Your task to perform on an android device: Do I have any events tomorrow? Image 0: 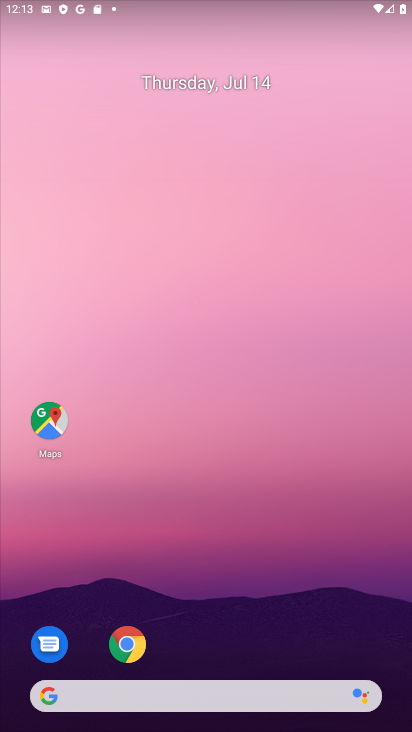
Step 0: drag from (268, 613) to (232, 16)
Your task to perform on an android device: Do I have any events tomorrow? Image 1: 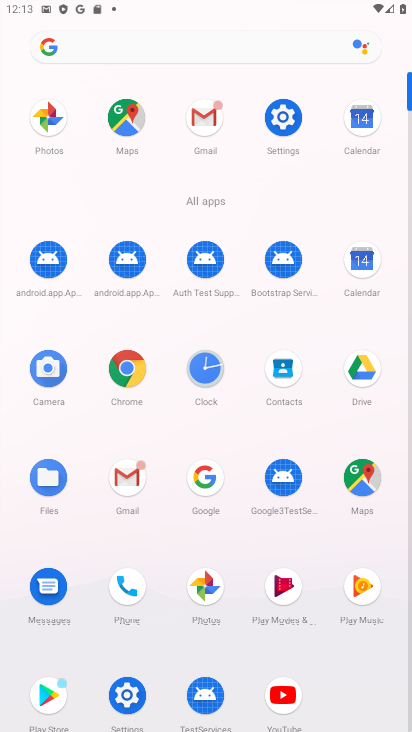
Step 1: click (370, 115)
Your task to perform on an android device: Do I have any events tomorrow? Image 2: 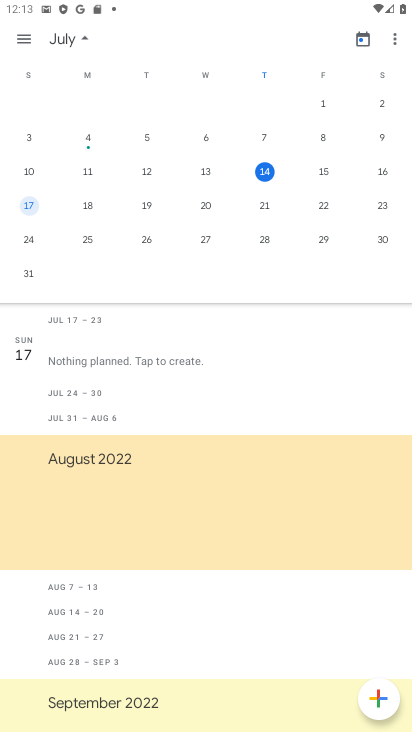
Step 2: click (333, 172)
Your task to perform on an android device: Do I have any events tomorrow? Image 3: 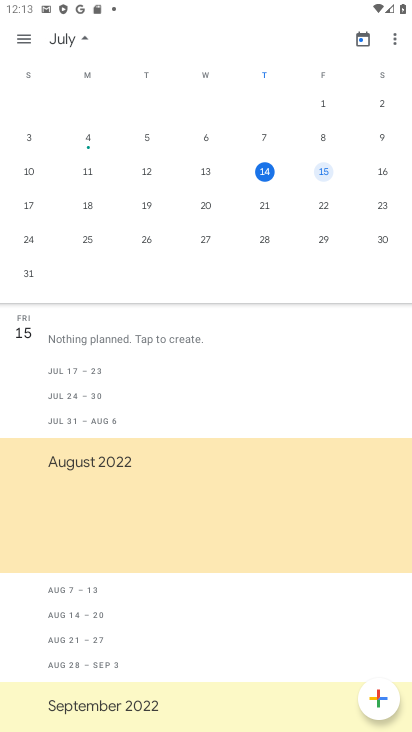
Step 3: task complete